Your task to perform on an android device: see creations saved in the google photos Image 0: 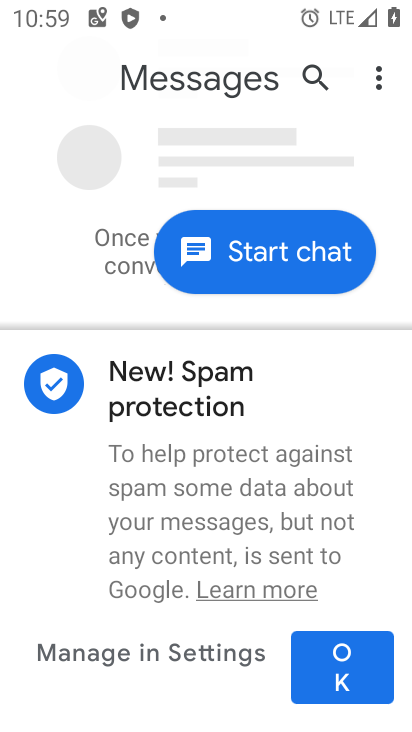
Step 0: press home button
Your task to perform on an android device: see creations saved in the google photos Image 1: 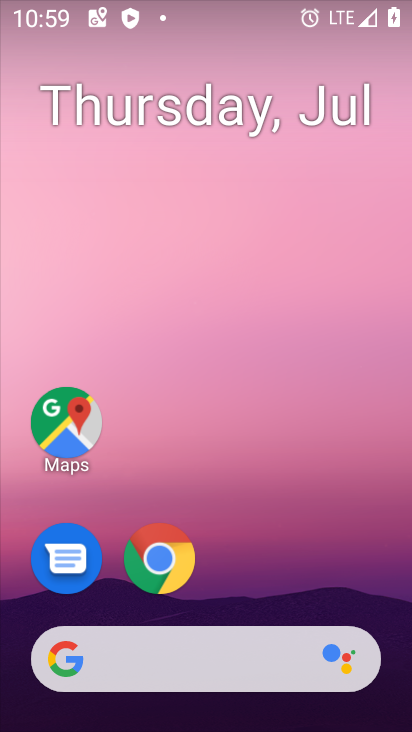
Step 1: drag from (311, 584) to (354, 80)
Your task to perform on an android device: see creations saved in the google photos Image 2: 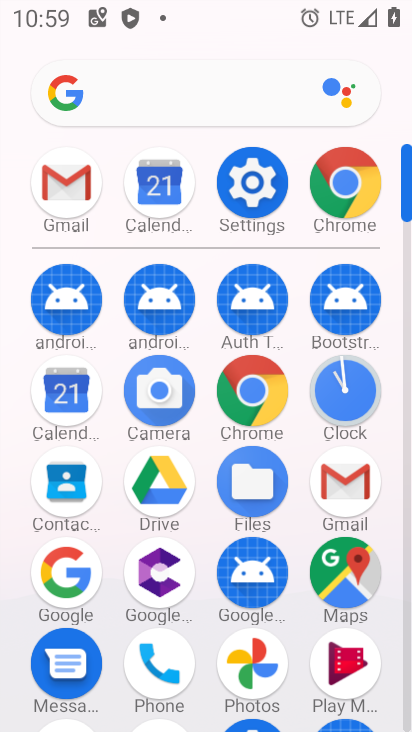
Step 2: click (254, 663)
Your task to perform on an android device: see creations saved in the google photos Image 3: 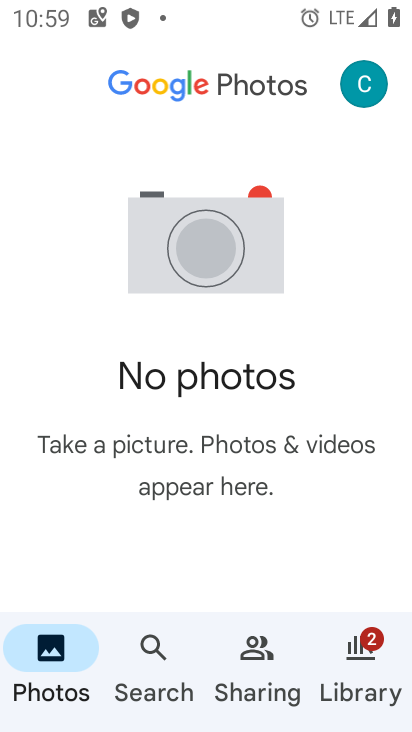
Step 3: click (166, 651)
Your task to perform on an android device: see creations saved in the google photos Image 4: 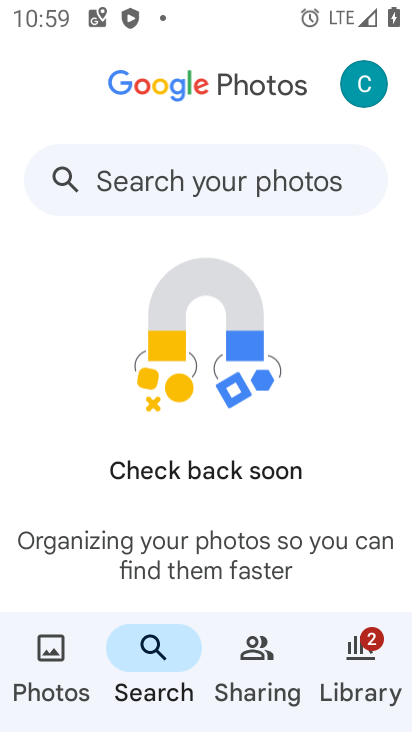
Step 4: drag from (249, 517) to (260, 335)
Your task to perform on an android device: see creations saved in the google photos Image 5: 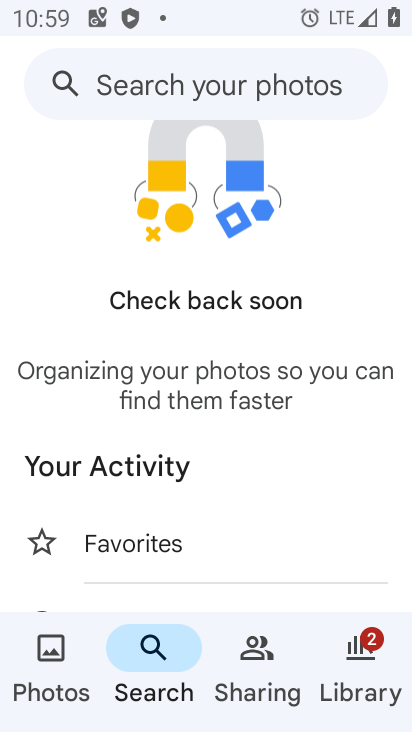
Step 5: drag from (274, 491) to (282, 369)
Your task to perform on an android device: see creations saved in the google photos Image 6: 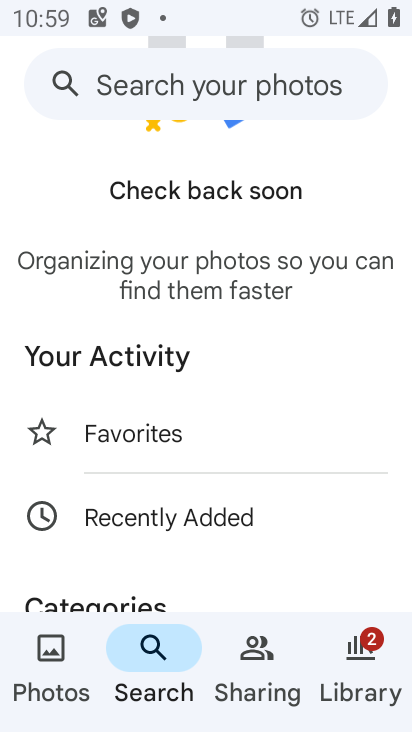
Step 6: drag from (294, 546) to (296, 333)
Your task to perform on an android device: see creations saved in the google photos Image 7: 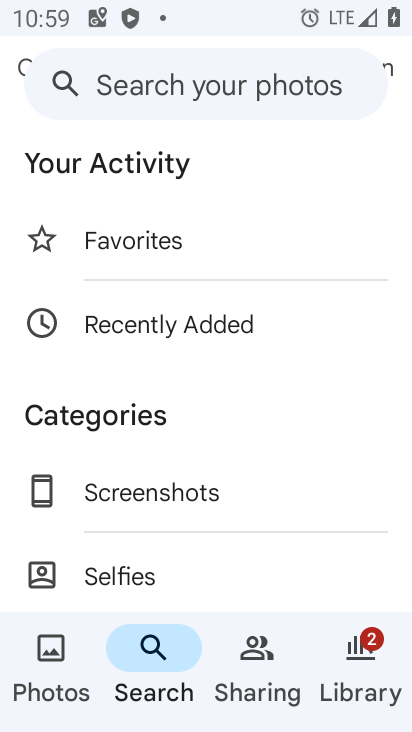
Step 7: drag from (274, 490) to (281, 343)
Your task to perform on an android device: see creations saved in the google photos Image 8: 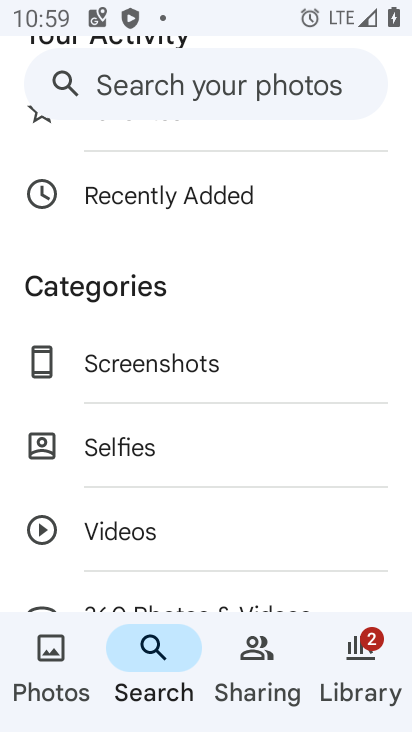
Step 8: drag from (280, 480) to (273, 350)
Your task to perform on an android device: see creations saved in the google photos Image 9: 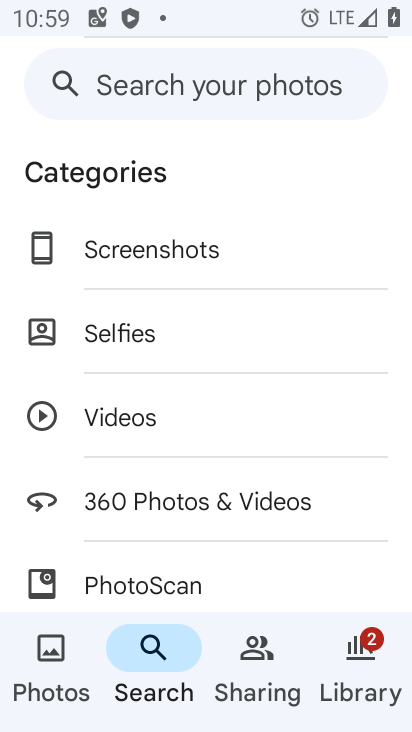
Step 9: drag from (269, 518) to (282, 313)
Your task to perform on an android device: see creations saved in the google photos Image 10: 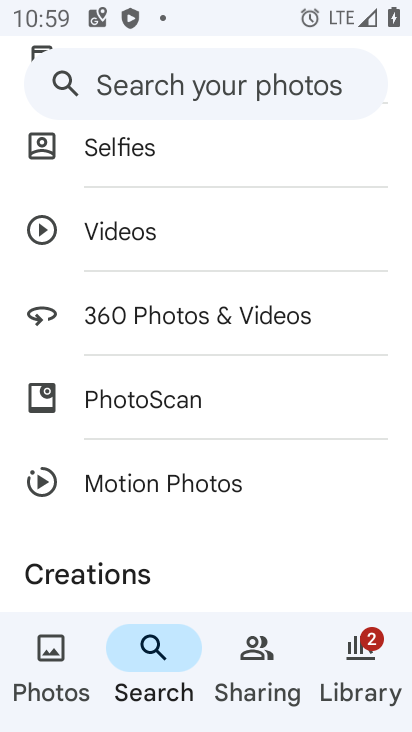
Step 10: drag from (290, 537) to (293, 335)
Your task to perform on an android device: see creations saved in the google photos Image 11: 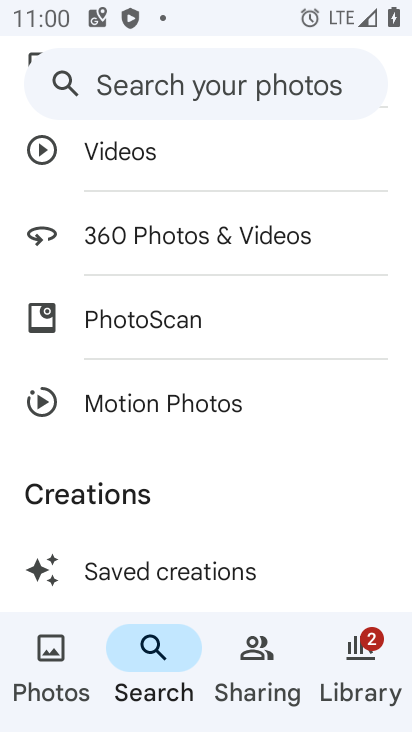
Step 11: click (222, 585)
Your task to perform on an android device: see creations saved in the google photos Image 12: 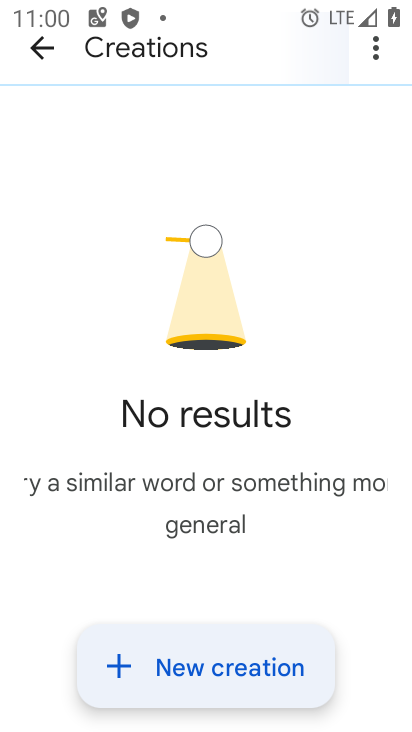
Step 12: task complete